Your task to perform on an android device: see creations saved in the google photos Image 0: 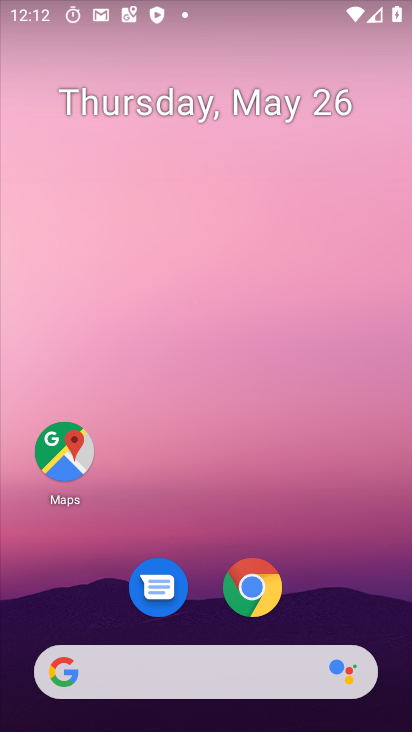
Step 0: drag from (333, 693) to (289, 143)
Your task to perform on an android device: see creations saved in the google photos Image 1: 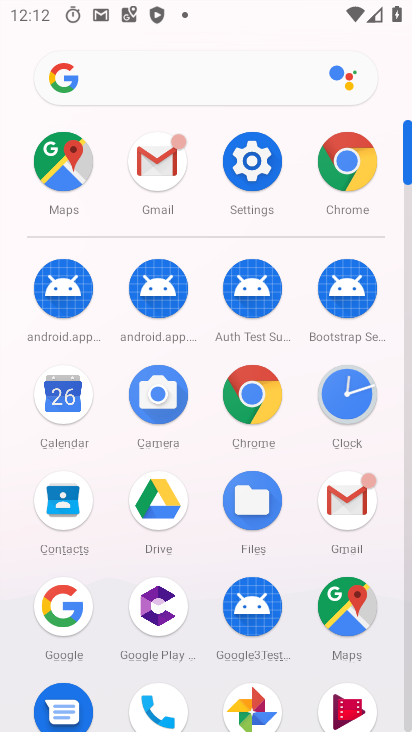
Step 1: drag from (216, 552) to (197, 430)
Your task to perform on an android device: see creations saved in the google photos Image 2: 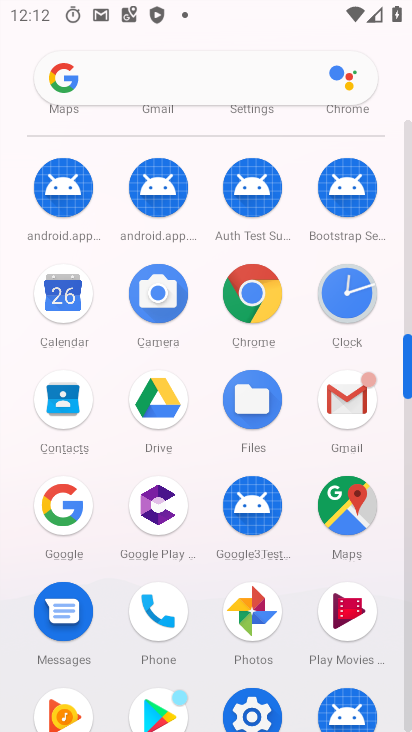
Step 2: click (260, 595)
Your task to perform on an android device: see creations saved in the google photos Image 3: 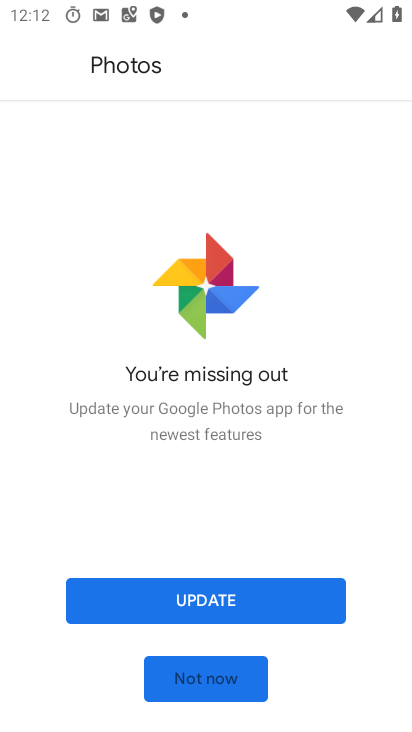
Step 3: click (224, 597)
Your task to perform on an android device: see creations saved in the google photos Image 4: 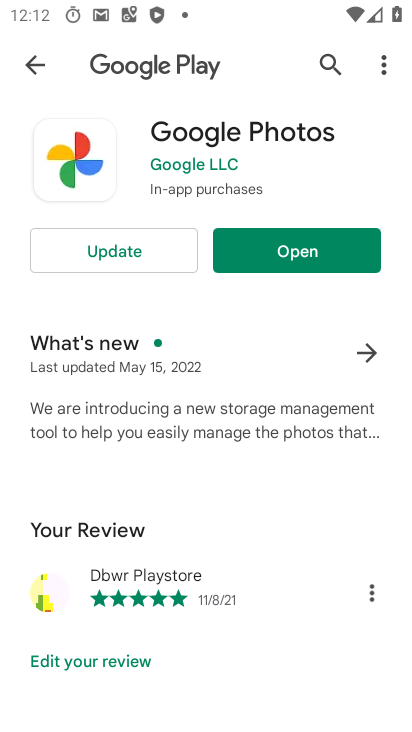
Step 4: click (276, 248)
Your task to perform on an android device: see creations saved in the google photos Image 5: 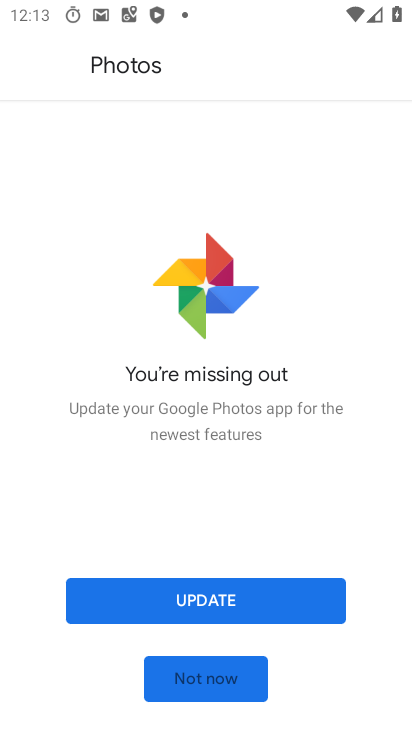
Step 5: click (235, 594)
Your task to perform on an android device: see creations saved in the google photos Image 6: 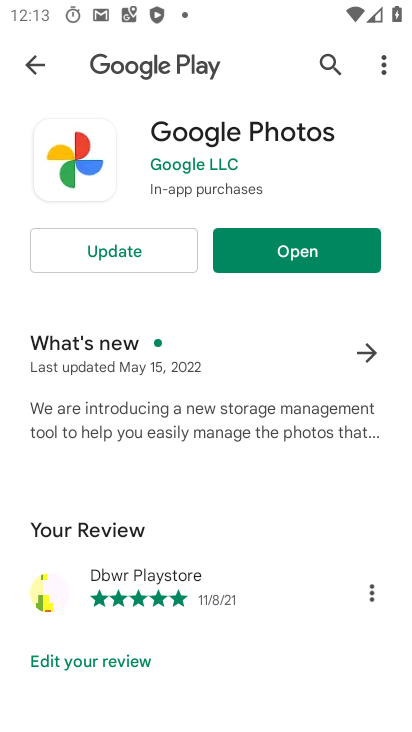
Step 6: click (119, 261)
Your task to perform on an android device: see creations saved in the google photos Image 7: 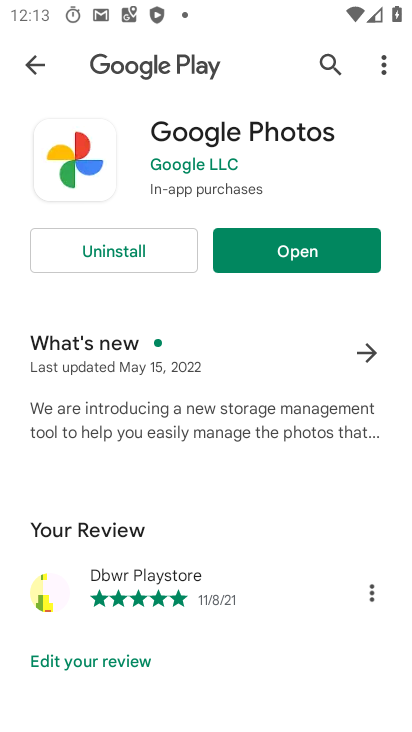
Step 7: click (289, 242)
Your task to perform on an android device: see creations saved in the google photos Image 8: 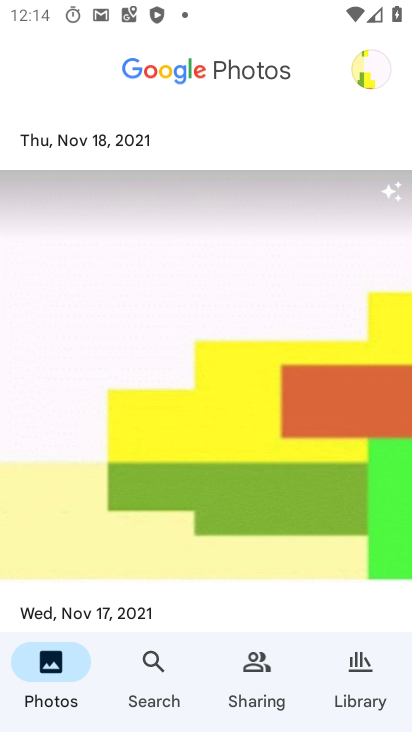
Step 8: click (338, 239)
Your task to perform on an android device: see creations saved in the google photos Image 9: 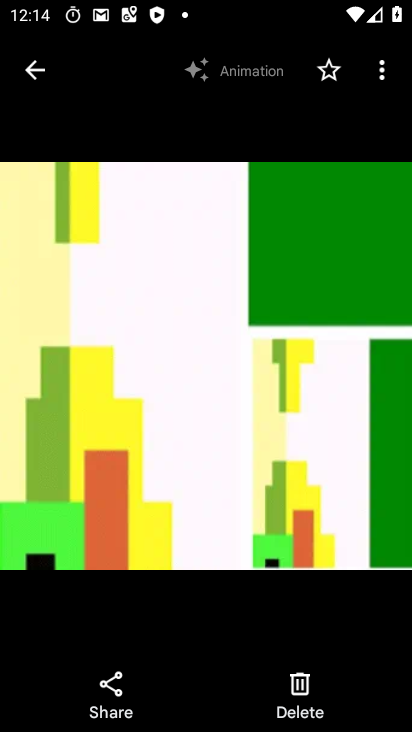
Step 9: click (382, 85)
Your task to perform on an android device: see creations saved in the google photos Image 10: 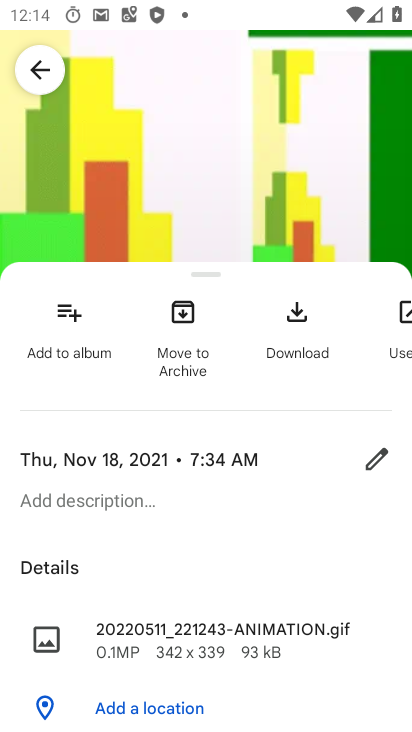
Step 10: task complete